Your task to perform on an android device: Set the phone to "Do not disturb". Image 0: 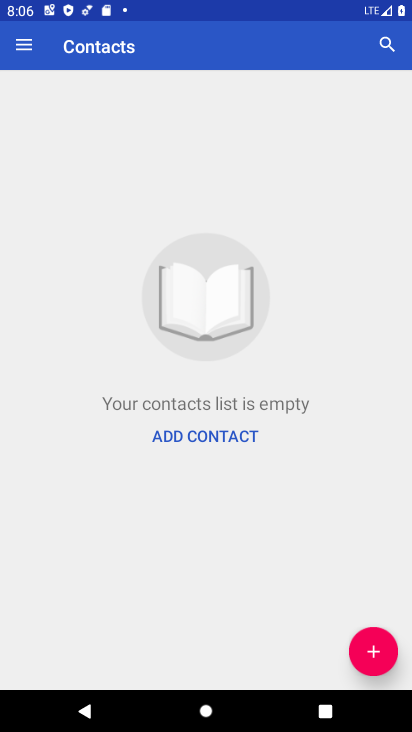
Step 0: press home button
Your task to perform on an android device: Set the phone to "Do not disturb". Image 1: 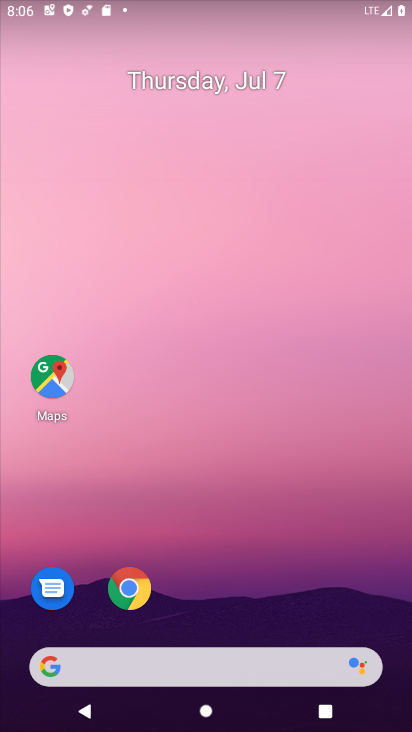
Step 1: drag from (212, 637) to (266, 249)
Your task to perform on an android device: Set the phone to "Do not disturb". Image 2: 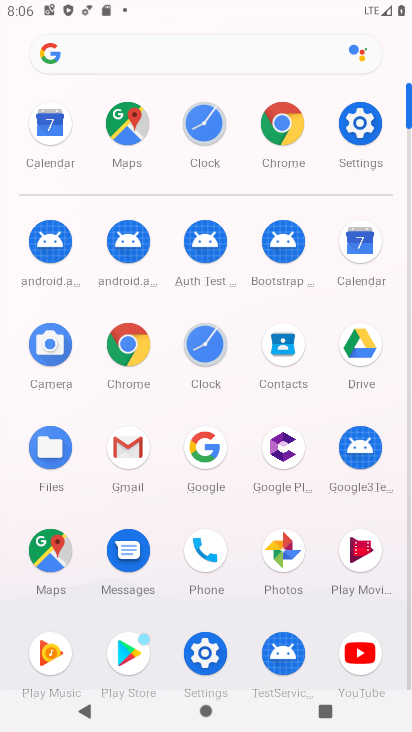
Step 2: drag from (187, 3) to (219, 488)
Your task to perform on an android device: Set the phone to "Do not disturb". Image 3: 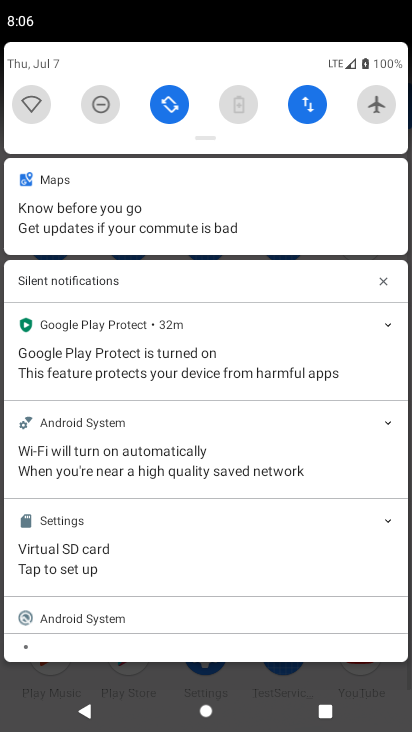
Step 3: click (108, 98)
Your task to perform on an android device: Set the phone to "Do not disturb". Image 4: 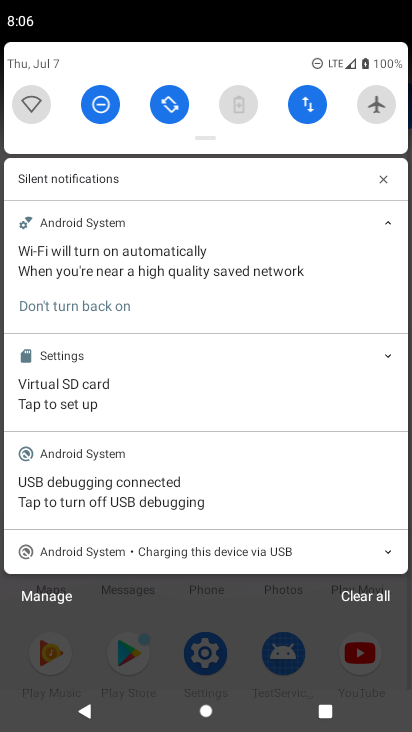
Step 4: task complete